Your task to perform on an android device: all mails in gmail Image 0: 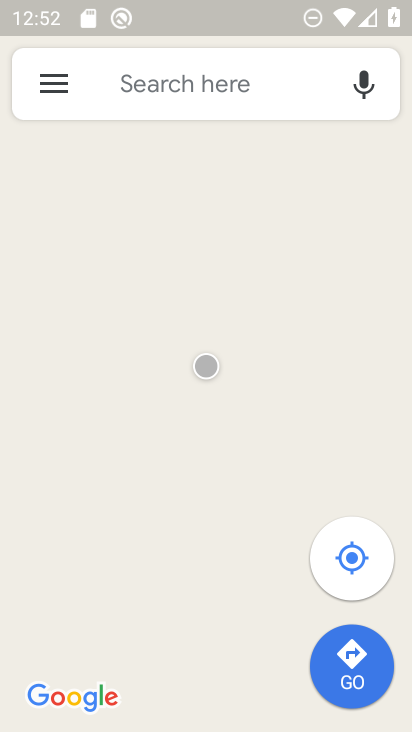
Step 0: press home button
Your task to perform on an android device: all mails in gmail Image 1: 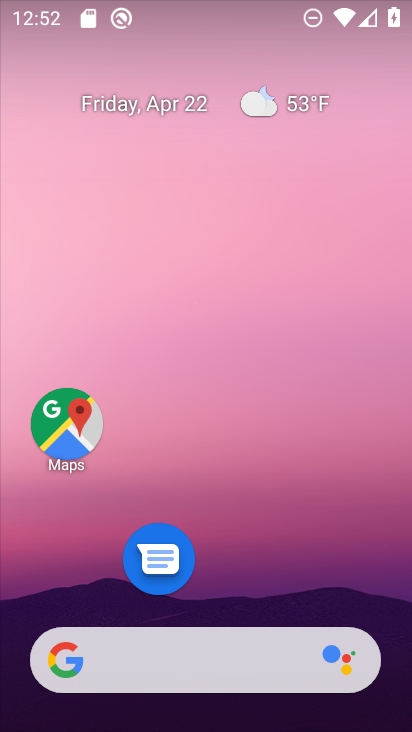
Step 1: drag from (222, 612) to (215, 225)
Your task to perform on an android device: all mails in gmail Image 2: 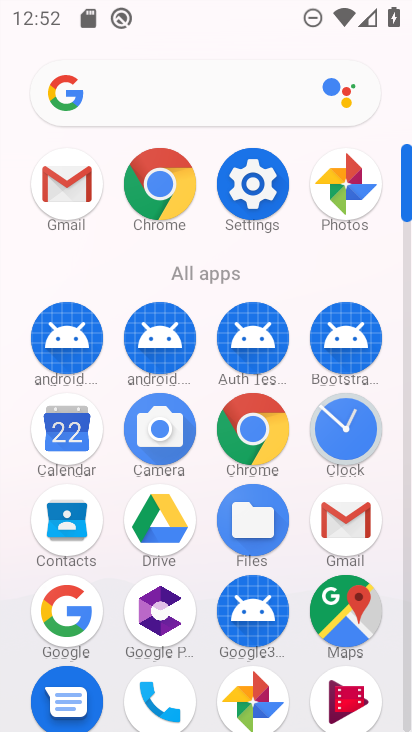
Step 2: click (355, 520)
Your task to perform on an android device: all mails in gmail Image 3: 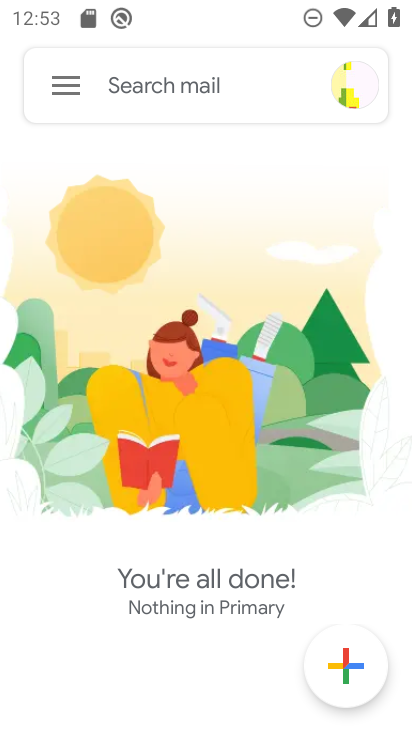
Step 3: click (61, 82)
Your task to perform on an android device: all mails in gmail Image 4: 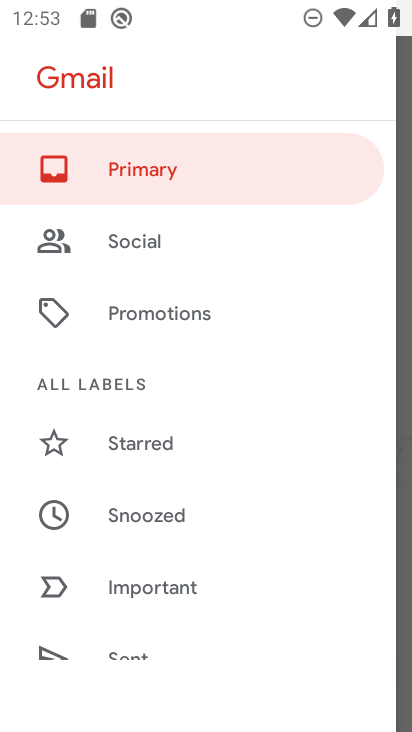
Step 4: drag from (190, 626) to (195, 253)
Your task to perform on an android device: all mails in gmail Image 5: 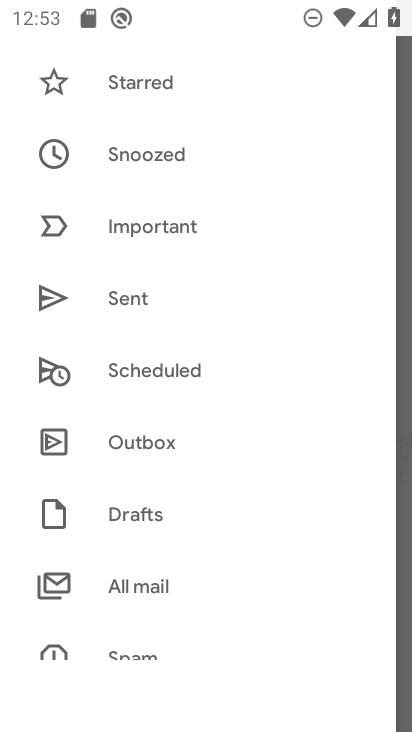
Step 5: click (138, 582)
Your task to perform on an android device: all mails in gmail Image 6: 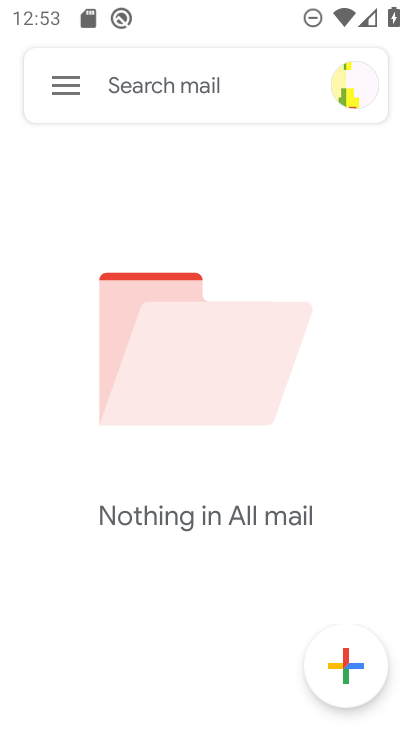
Step 6: task complete